Your task to perform on an android device: Empty the shopping cart on ebay.com. Add bose quietcomfort 35 to the cart on ebay.com Image 0: 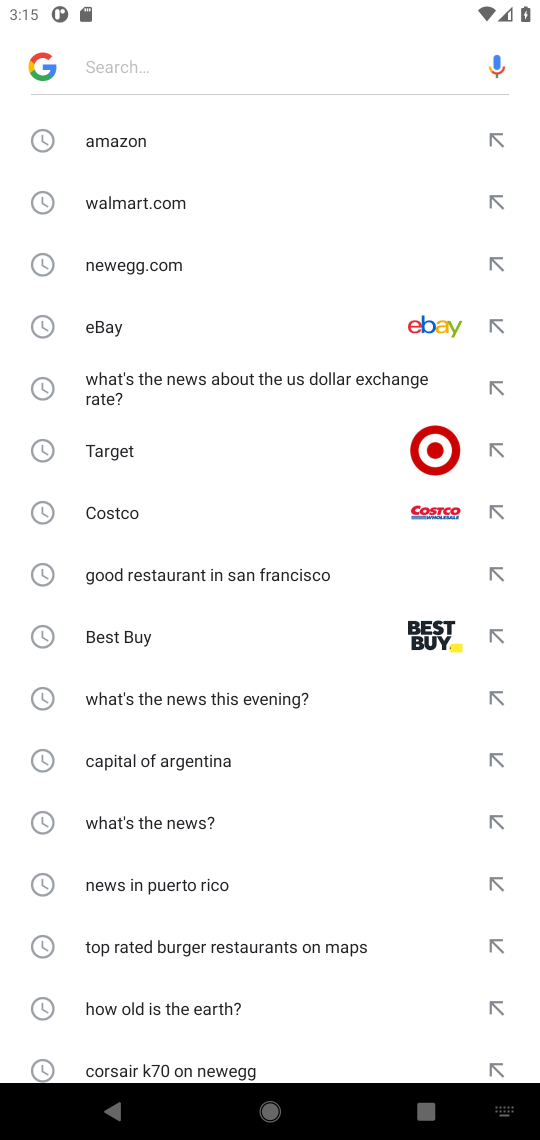
Step 0: press home button
Your task to perform on an android device: Empty the shopping cart on ebay.com. Add bose quietcomfort 35 to the cart on ebay.com Image 1: 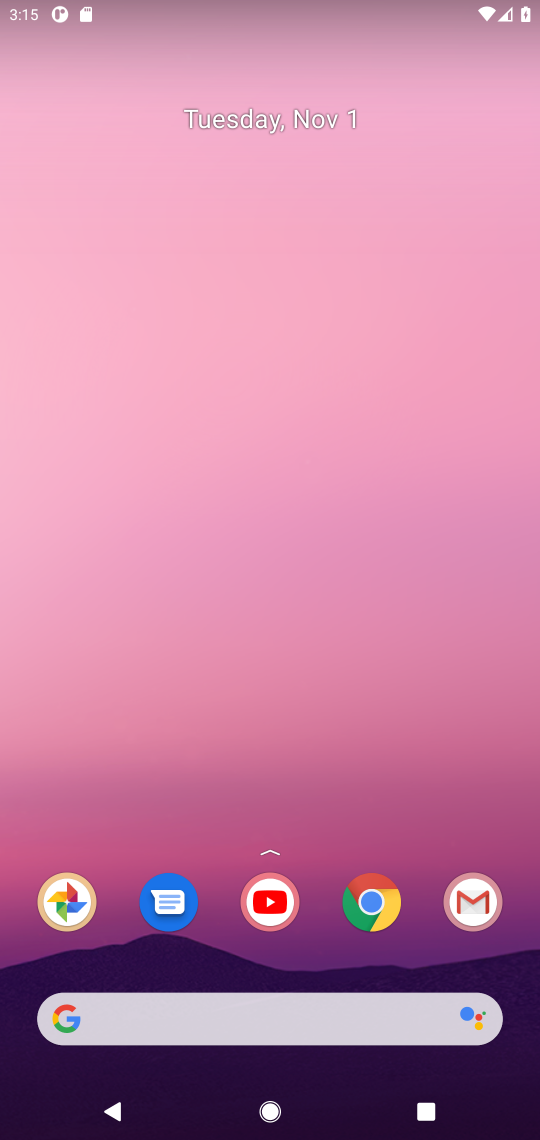
Step 1: click (374, 903)
Your task to perform on an android device: Empty the shopping cart on ebay.com. Add bose quietcomfort 35 to the cart on ebay.com Image 2: 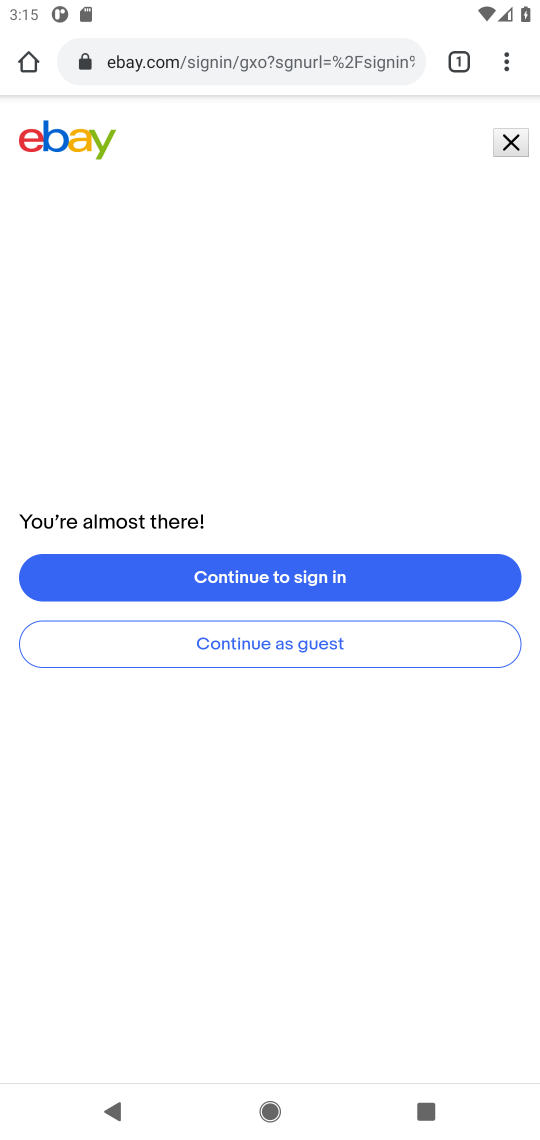
Step 2: click (176, 51)
Your task to perform on an android device: Empty the shopping cart on ebay.com. Add bose quietcomfort 35 to the cart on ebay.com Image 3: 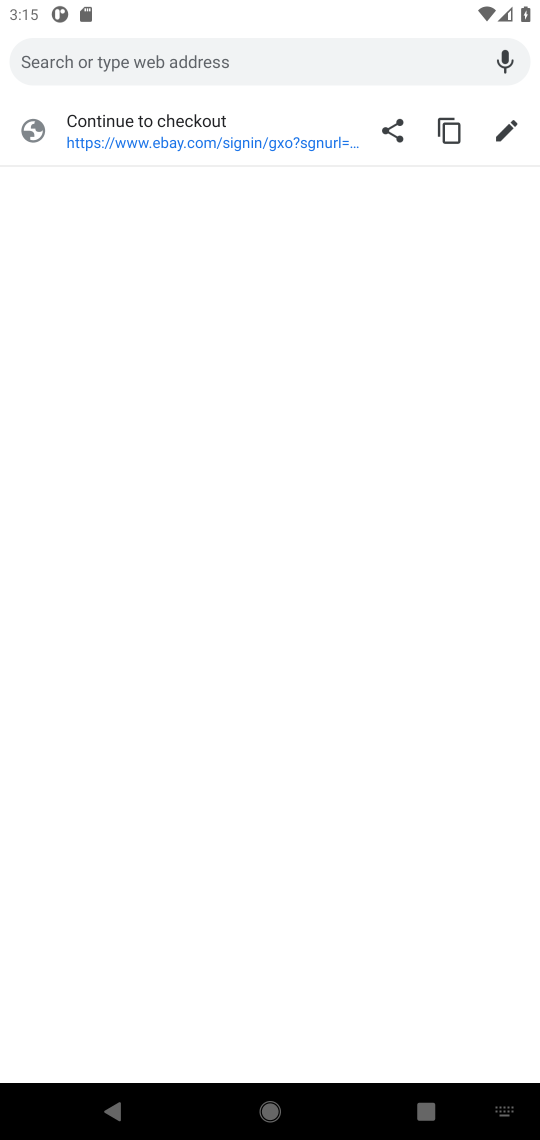
Step 3: type "ebay.com"
Your task to perform on an android device: Empty the shopping cart on ebay.com. Add bose quietcomfort 35 to the cart on ebay.com Image 4: 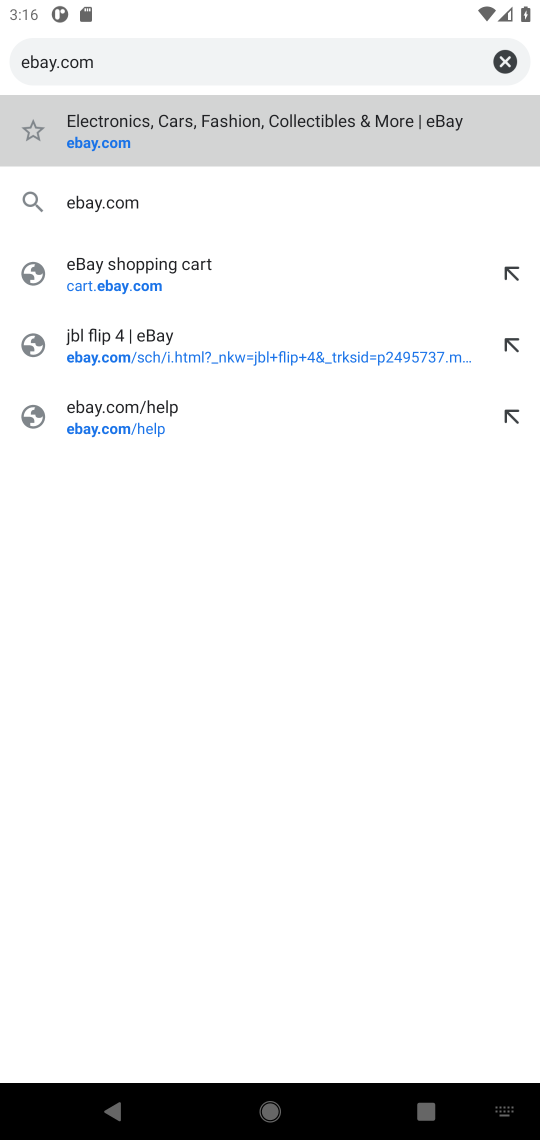
Step 4: click (81, 200)
Your task to perform on an android device: Empty the shopping cart on ebay.com. Add bose quietcomfort 35 to the cart on ebay.com Image 5: 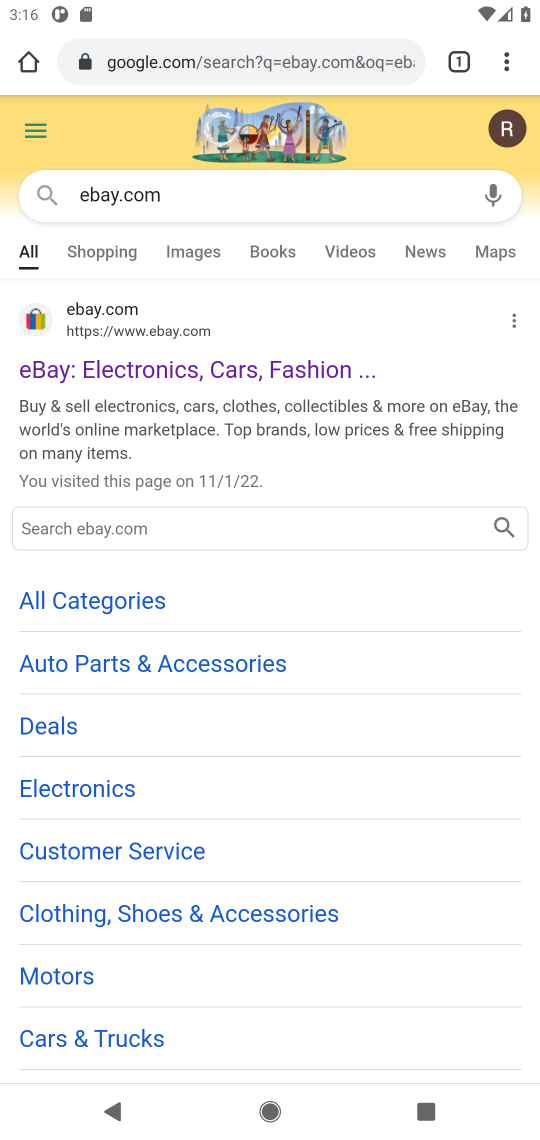
Step 5: click (161, 364)
Your task to perform on an android device: Empty the shopping cart on ebay.com. Add bose quietcomfort 35 to the cart on ebay.com Image 6: 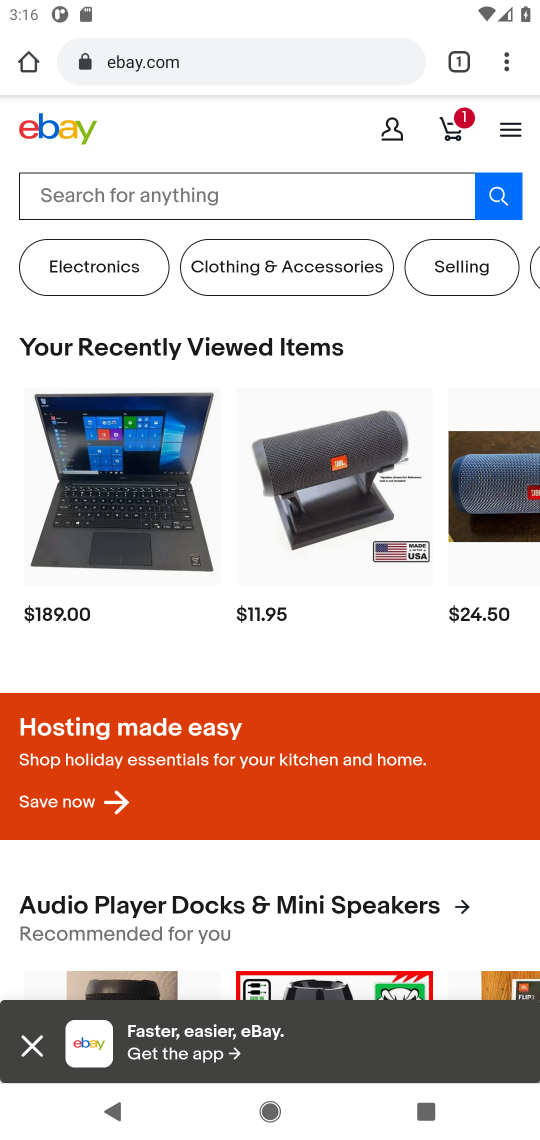
Step 6: click (454, 130)
Your task to perform on an android device: Empty the shopping cart on ebay.com. Add bose quietcomfort 35 to the cart on ebay.com Image 7: 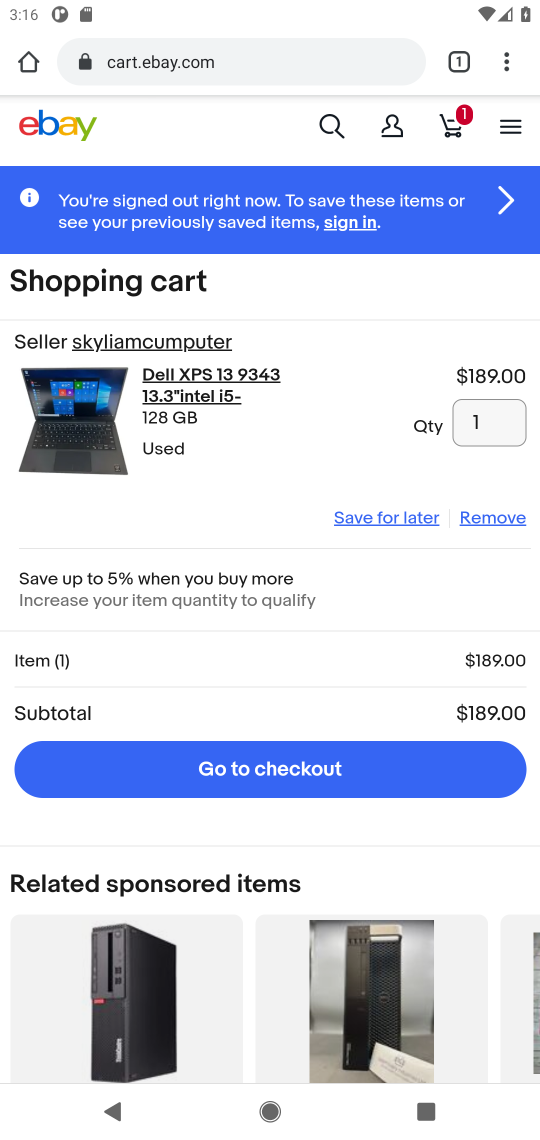
Step 7: click (482, 511)
Your task to perform on an android device: Empty the shopping cart on ebay.com. Add bose quietcomfort 35 to the cart on ebay.com Image 8: 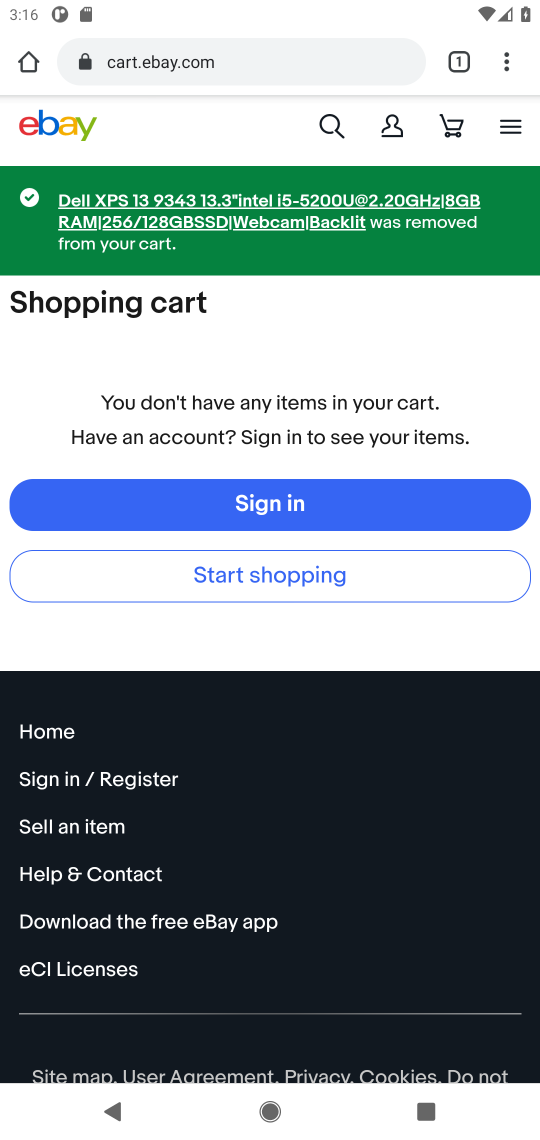
Step 8: click (331, 127)
Your task to perform on an android device: Empty the shopping cart on ebay.com. Add bose quietcomfort 35 to the cart on ebay.com Image 9: 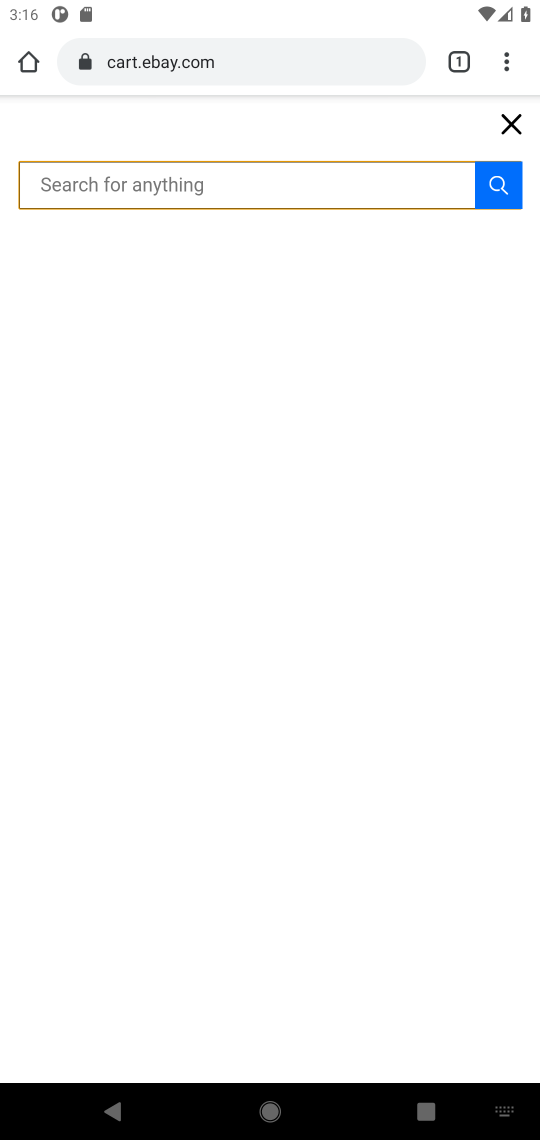
Step 9: type "bose quietcomfort 35"
Your task to perform on an android device: Empty the shopping cart on ebay.com. Add bose quietcomfort 35 to the cart on ebay.com Image 10: 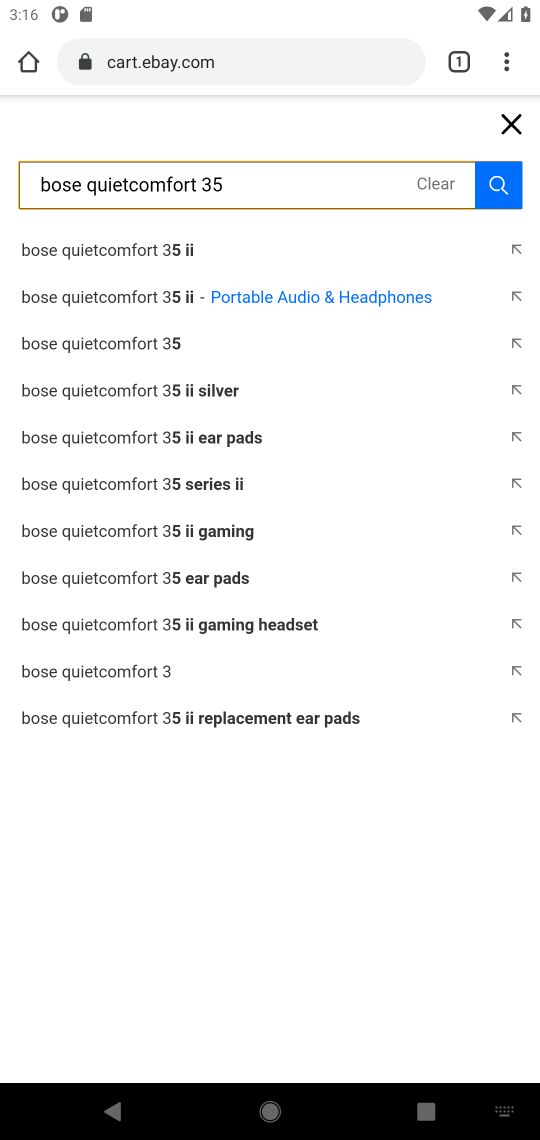
Step 10: click (493, 187)
Your task to perform on an android device: Empty the shopping cart on ebay.com. Add bose quietcomfort 35 to the cart on ebay.com Image 11: 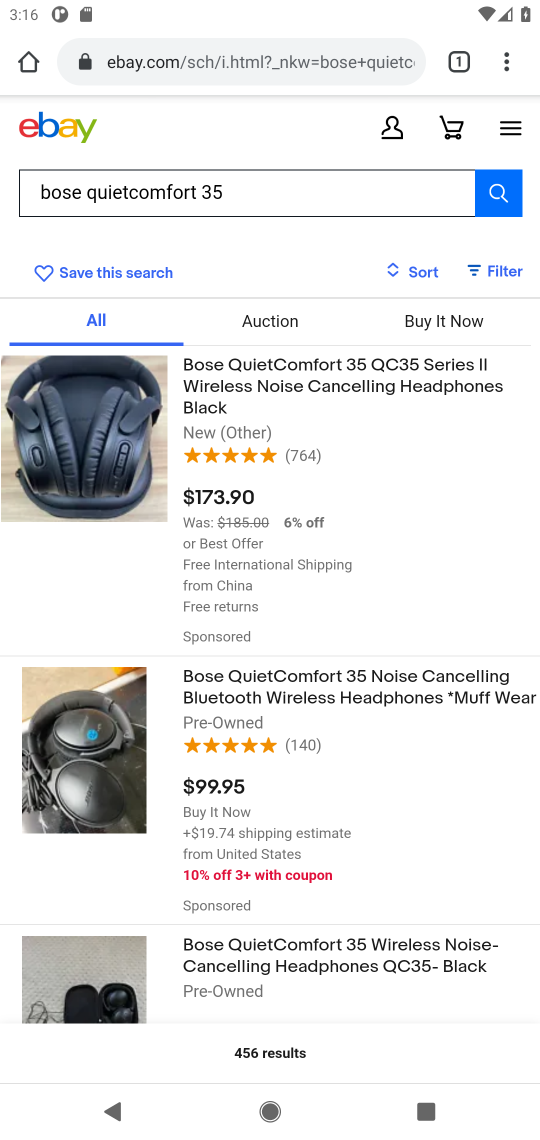
Step 11: click (411, 375)
Your task to perform on an android device: Empty the shopping cart on ebay.com. Add bose quietcomfort 35 to the cart on ebay.com Image 12: 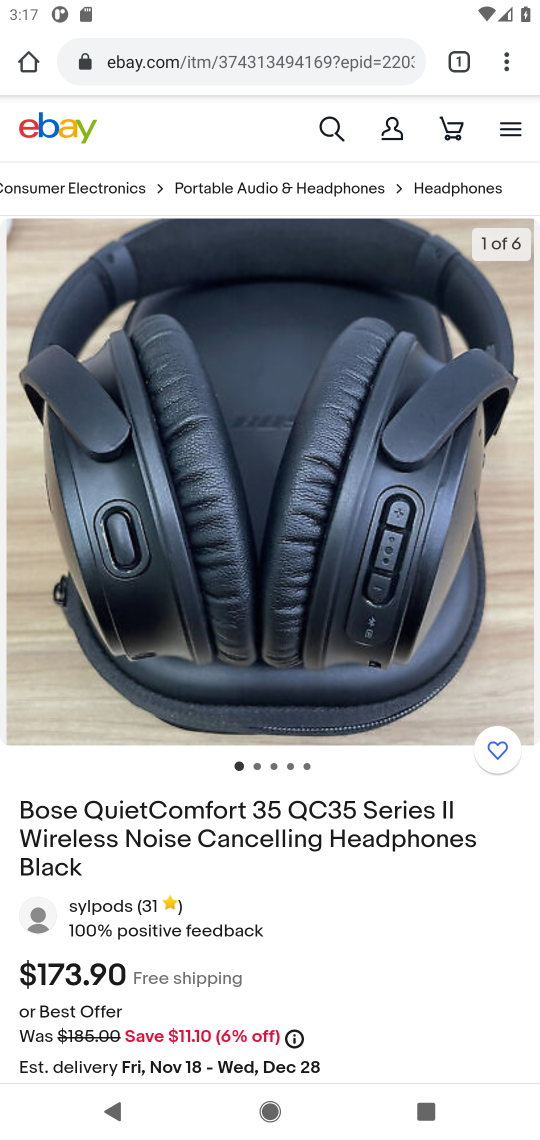
Step 12: drag from (335, 600) to (376, 421)
Your task to perform on an android device: Empty the shopping cart on ebay.com. Add bose quietcomfort 35 to the cart on ebay.com Image 13: 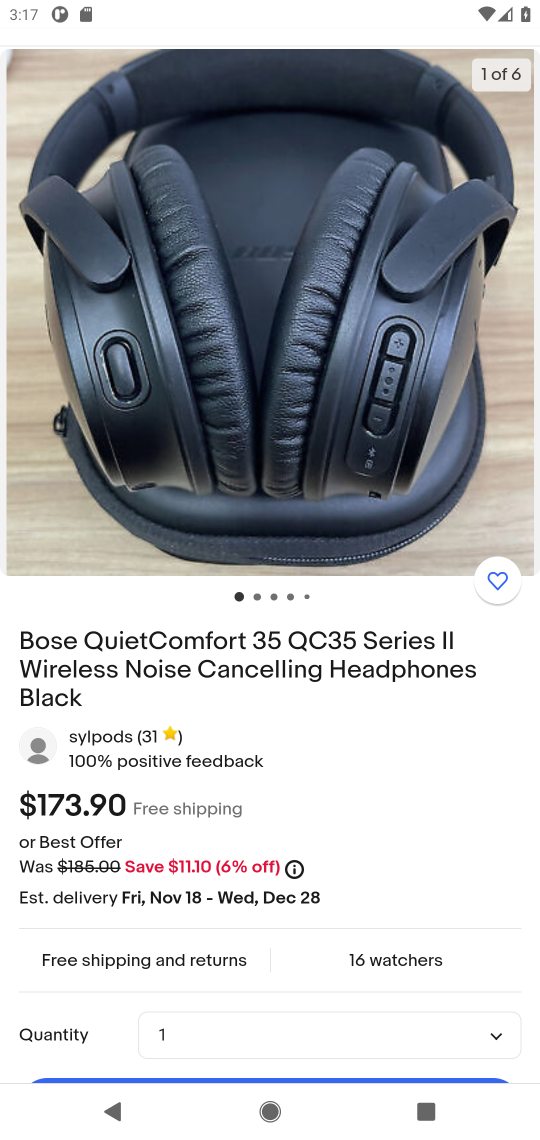
Step 13: drag from (319, 626) to (293, 303)
Your task to perform on an android device: Empty the shopping cart on ebay.com. Add bose quietcomfort 35 to the cart on ebay.com Image 14: 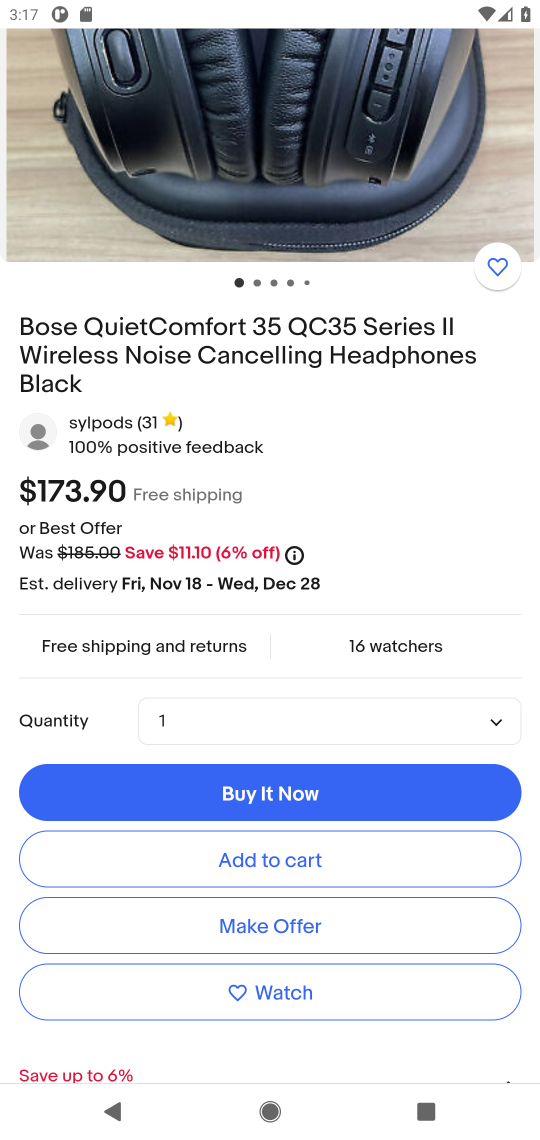
Step 14: click (285, 857)
Your task to perform on an android device: Empty the shopping cart on ebay.com. Add bose quietcomfort 35 to the cart on ebay.com Image 15: 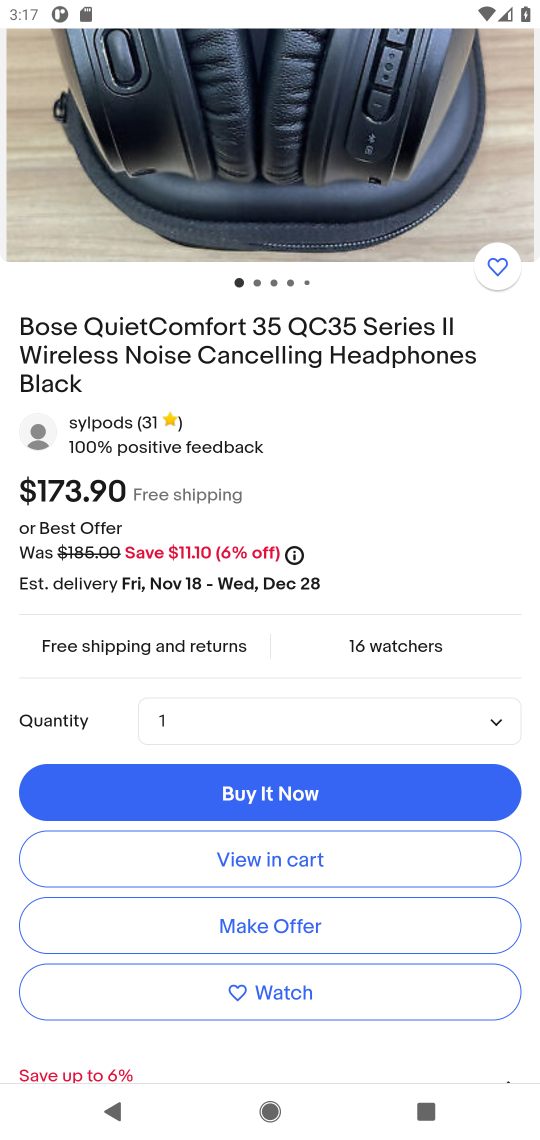
Step 15: click (285, 857)
Your task to perform on an android device: Empty the shopping cart on ebay.com. Add bose quietcomfort 35 to the cart on ebay.com Image 16: 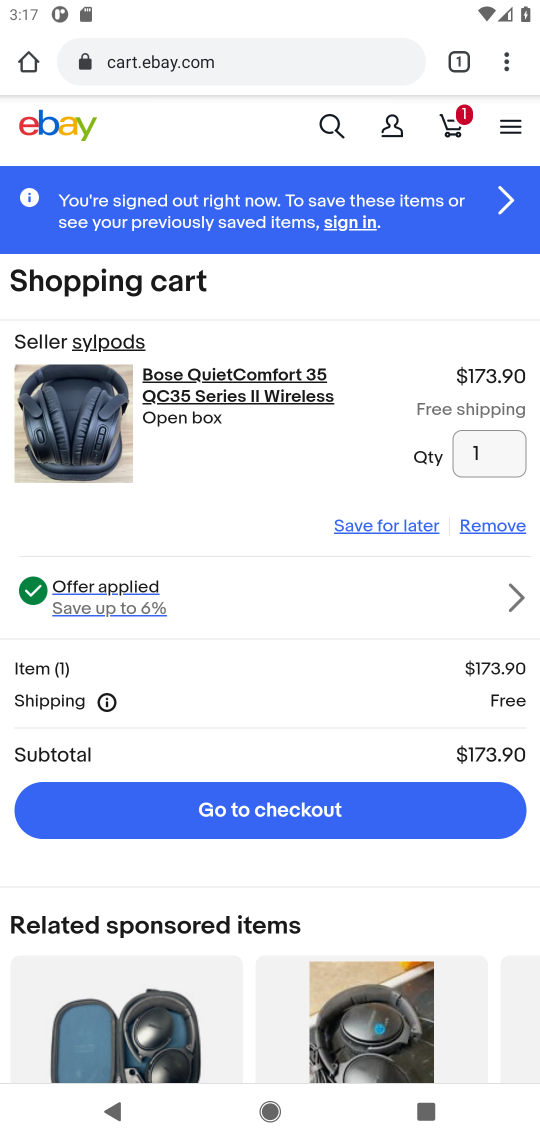
Step 16: task complete